Your task to perform on an android device: all mails in gmail Image 0: 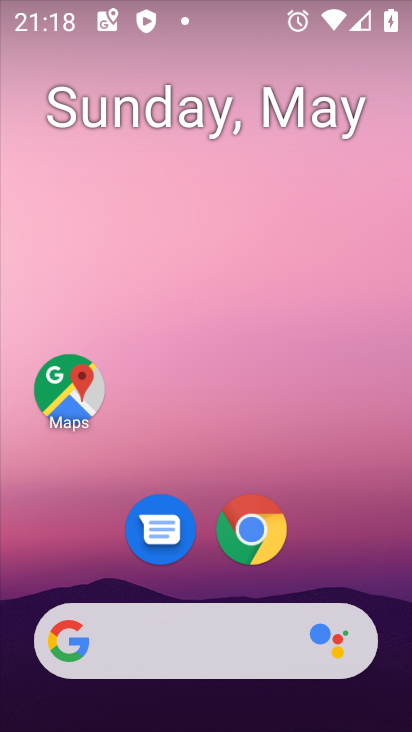
Step 0: drag from (355, 575) to (389, 14)
Your task to perform on an android device: all mails in gmail Image 1: 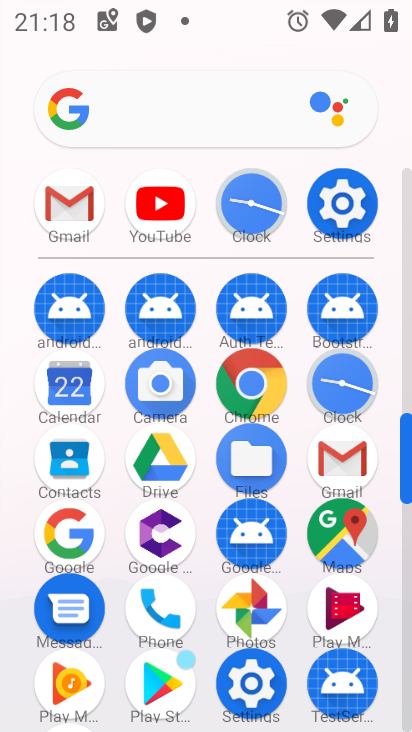
Step 1: click (54, 201)
Your task to perform on an android device: all mails in gmail Image 2: 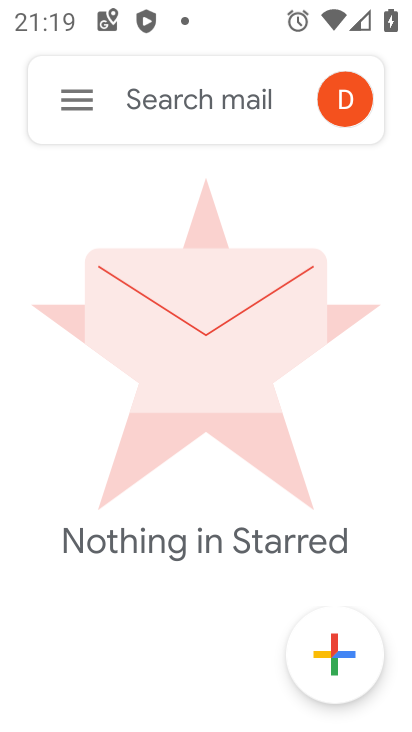
Step 2: click (65, 112)
Your task to perform on an android device: all mails in gmail Image 3: 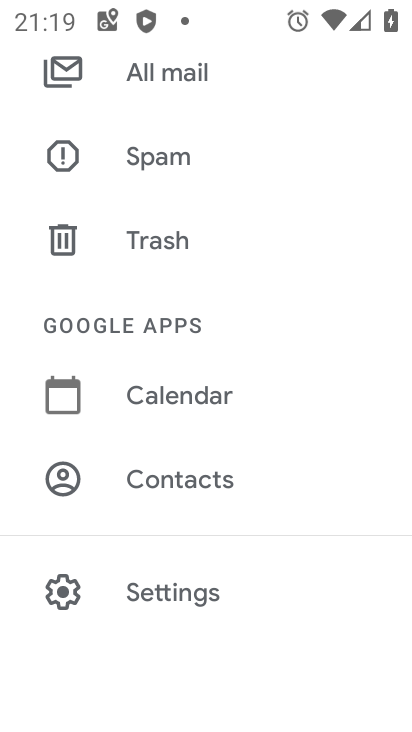
Step 3: click (179, 79)
Your task to perform on an android device: all mails in gmail Image 4: 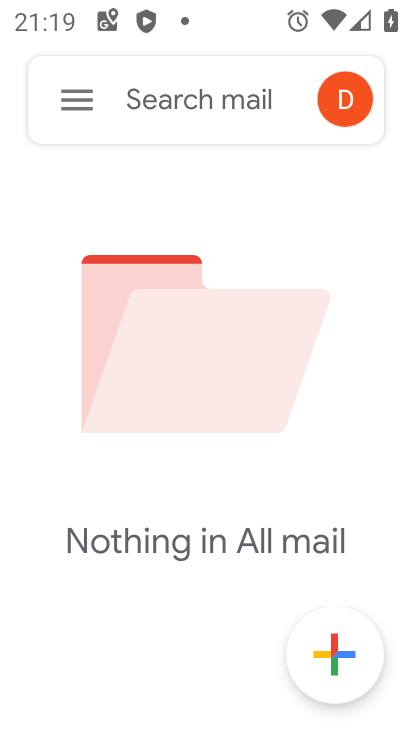
Step 4: task complete